Your task to perform on an android device: uninstall "Spotify: Music and Podcasts" Image 0: 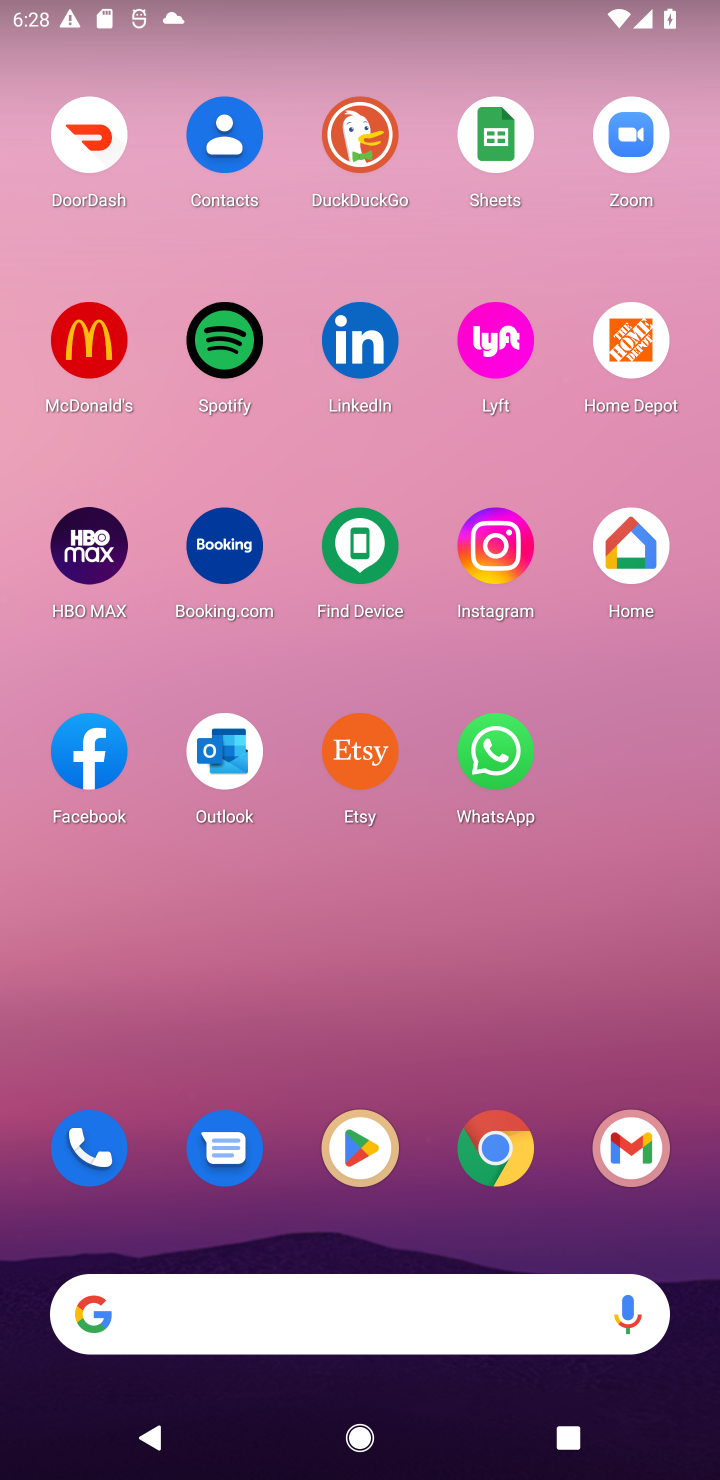
Step 0: drag from (492, 1142) to (288, 118)
Your task to perform on an android device: uninstall "Spotify: Music and Podcasts" Image 1: 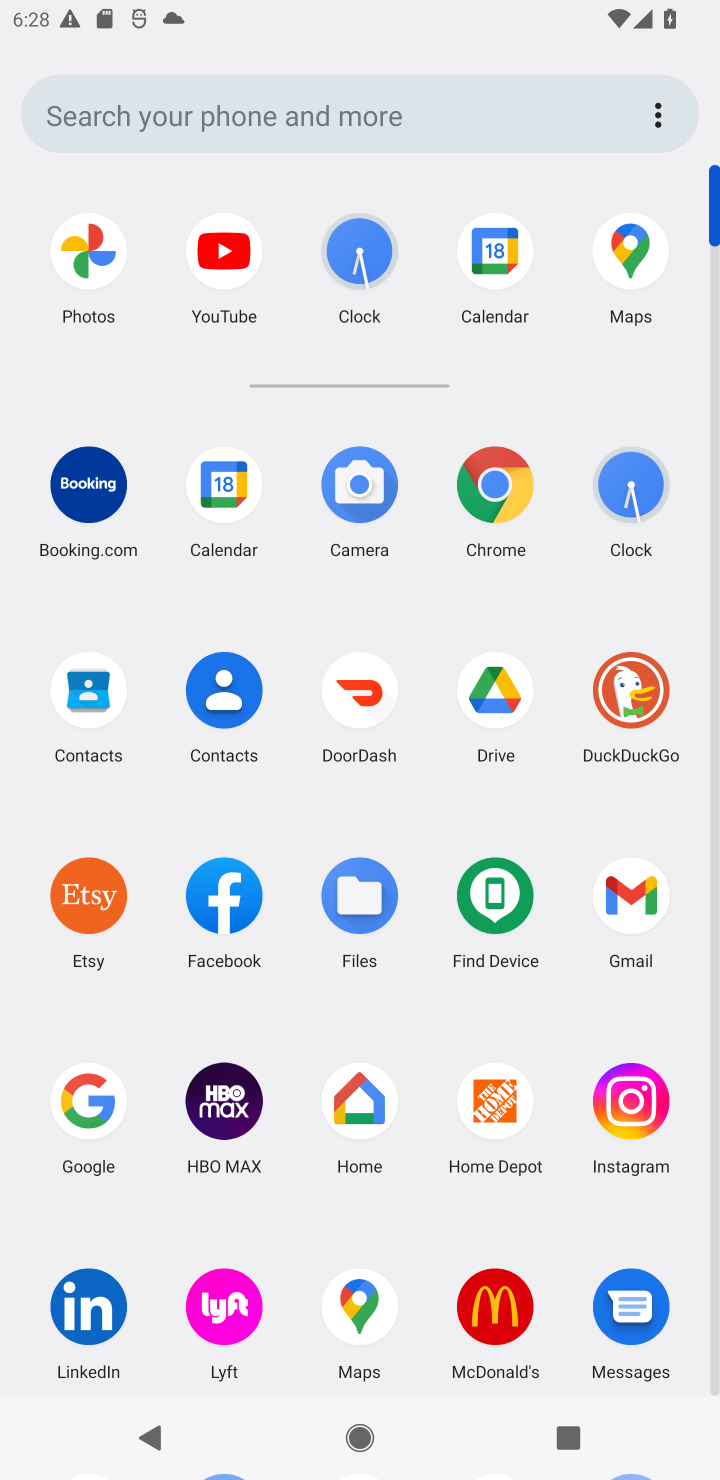
Step 1: drag from (383, 978) to (327, 224)
Your task to perform on an android device: uninstall "Spotify: Music and Podcasts" Image 2: 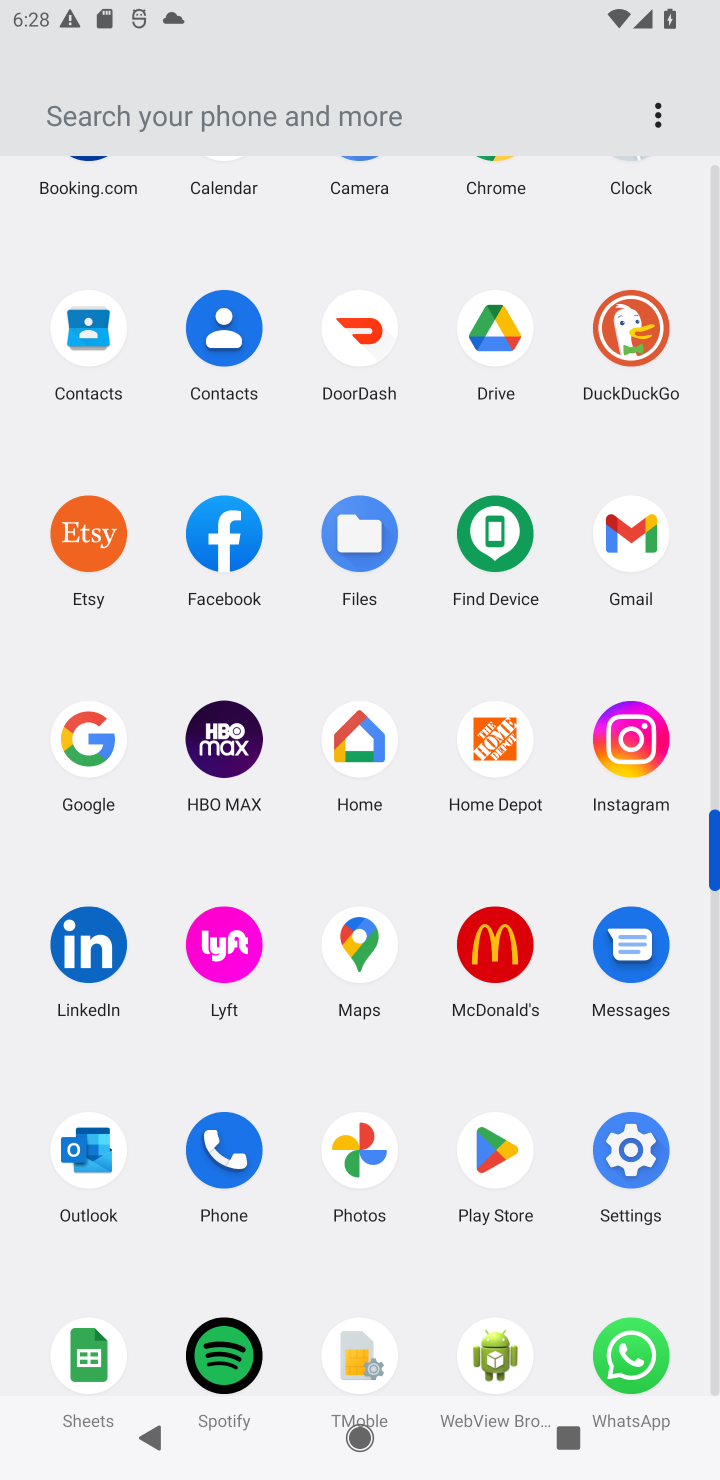
Step 2: click (472, 1126)
Your task to perform on an android device: uninstall "Spotify: Music and Podcasts" Image 3: 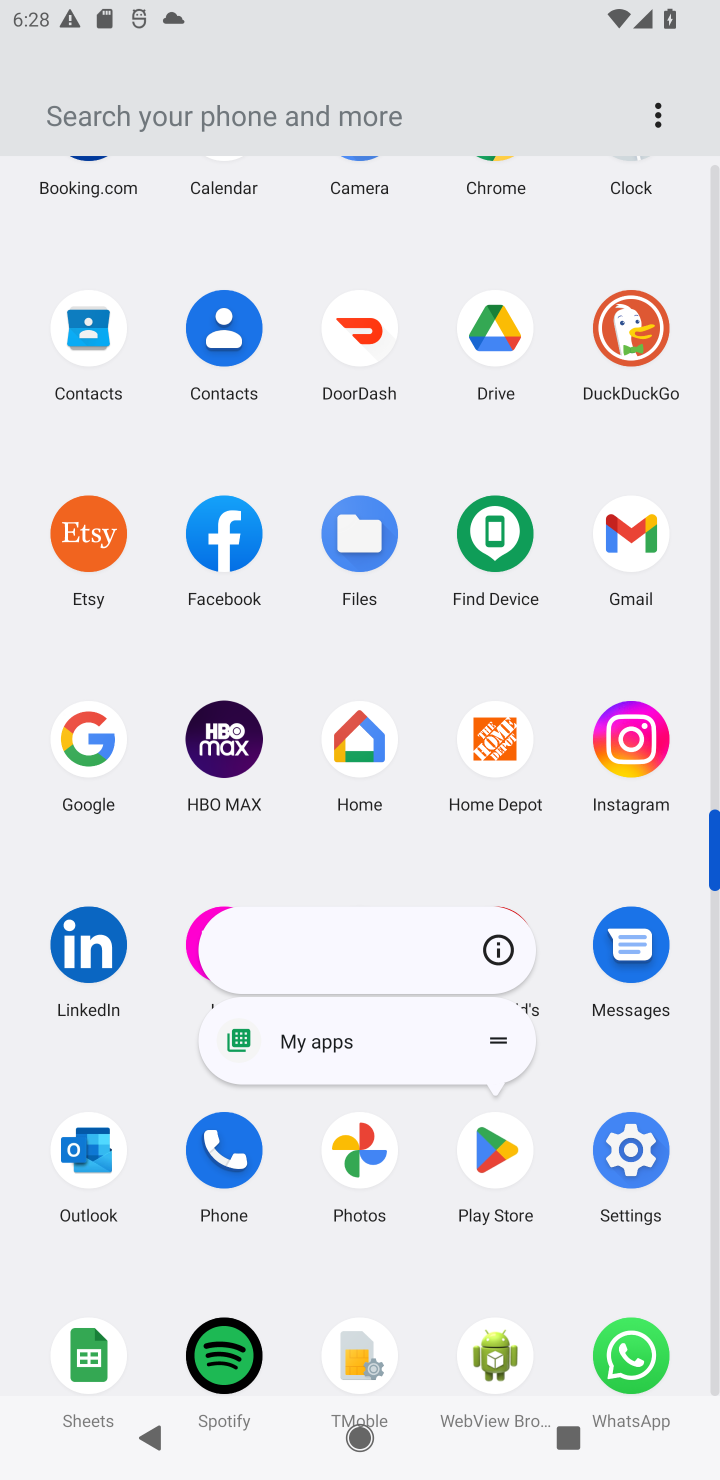
Step 3: click (493, 1139)
Your task to perform on an android device: uninstall "Spotify: Music and Podcasts" Image 4: 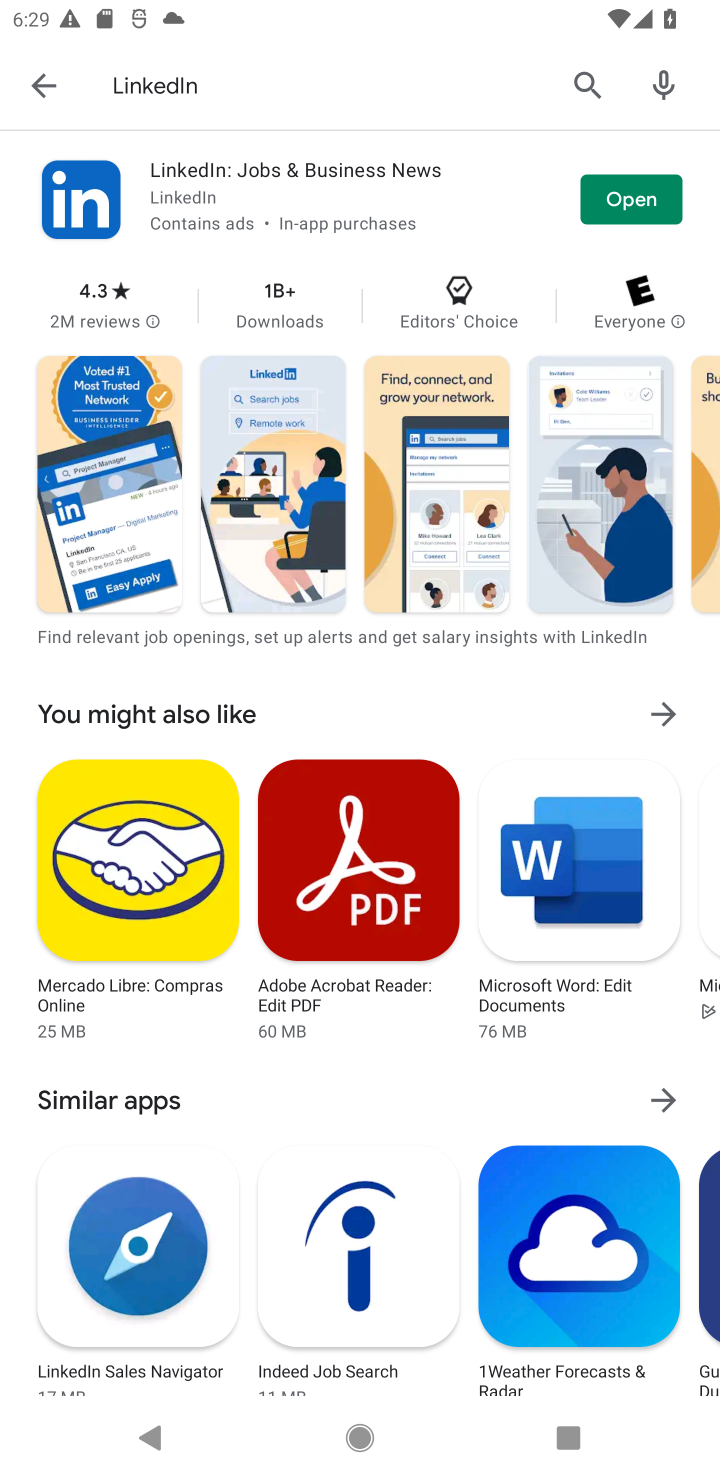
Step 4: press back button
Your task to perform on an android device: uninstall "Spotify: Music and Podcasts" Image 5: 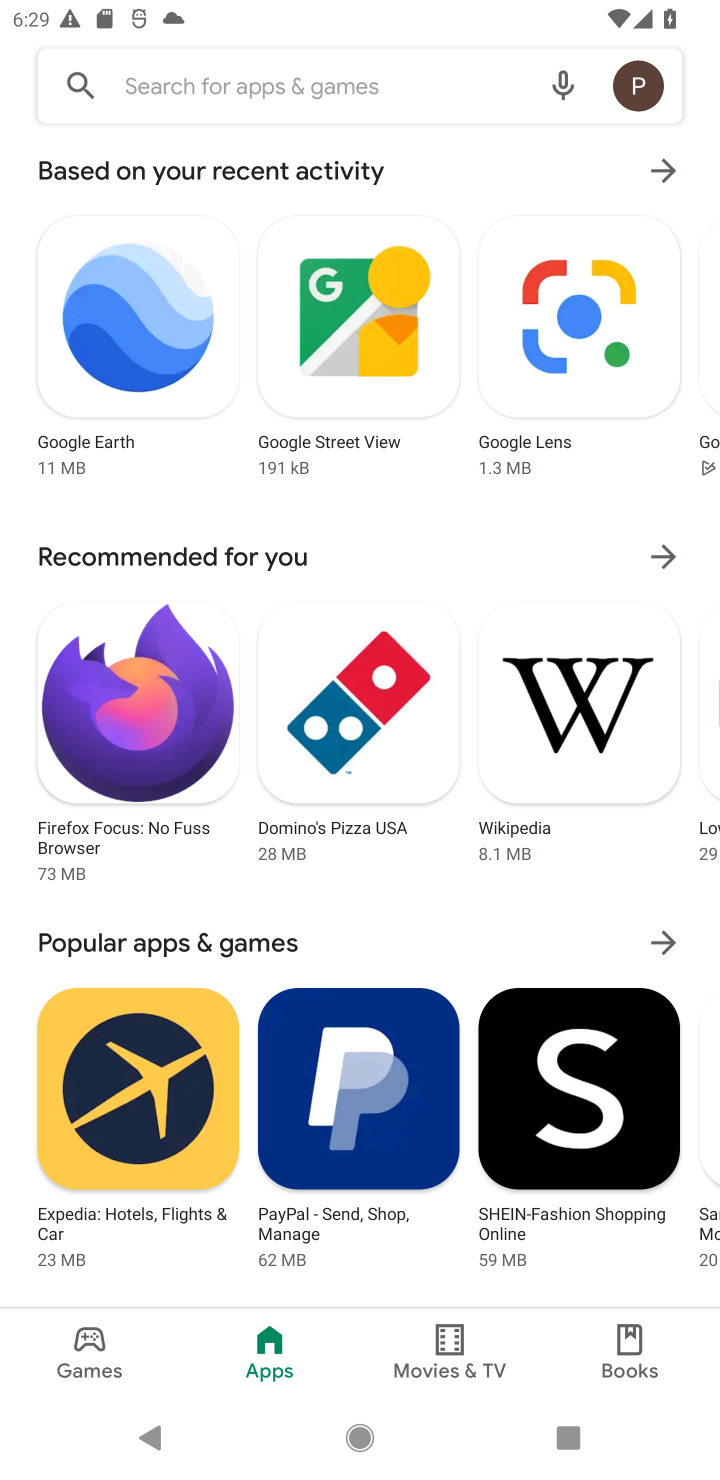
Step 5: click (299, 87)
Your task to perform on an android device: uninstall "Spotify: Music and Podcasts" Image 6: 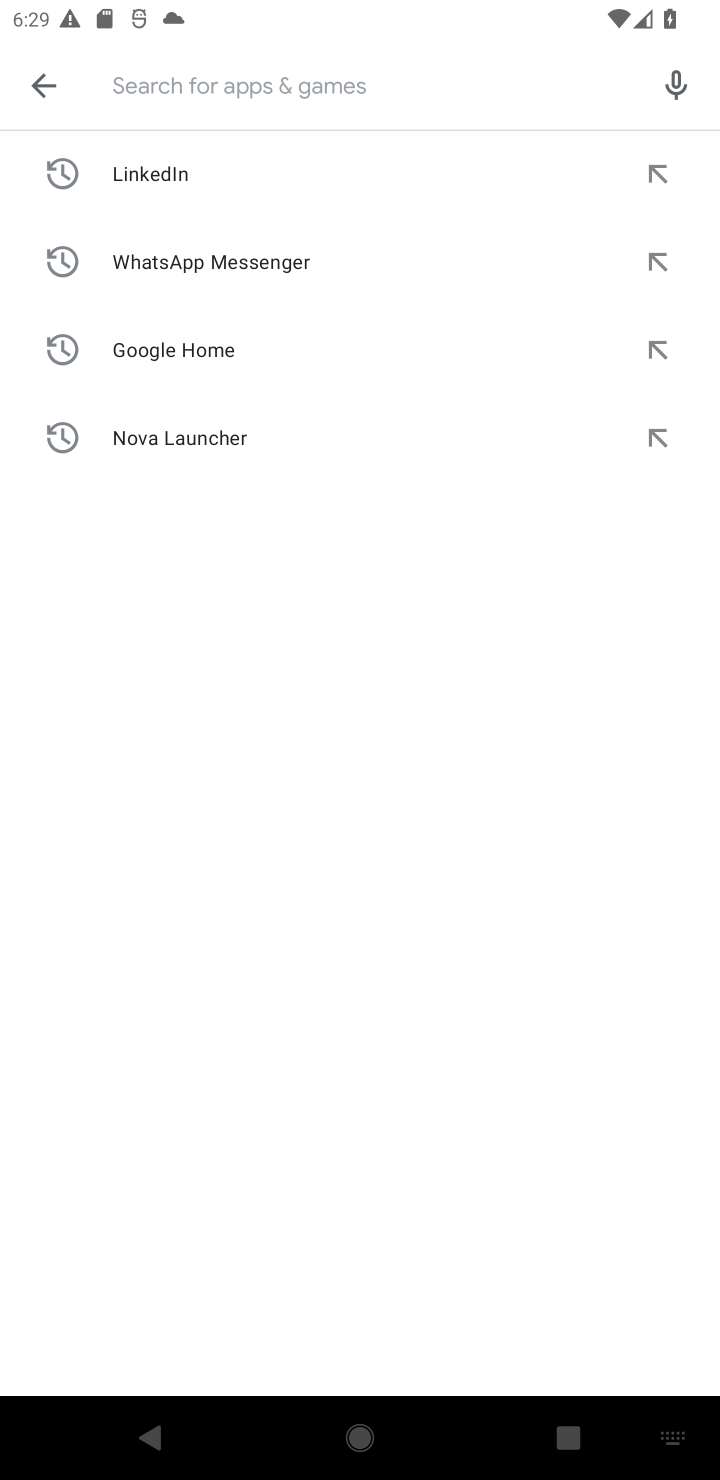
Step 6: type "Spotify: Music and Podcasts"
Your task to perform on an android device: uninstall "Spotify: Music and Podcasts" Image 7: 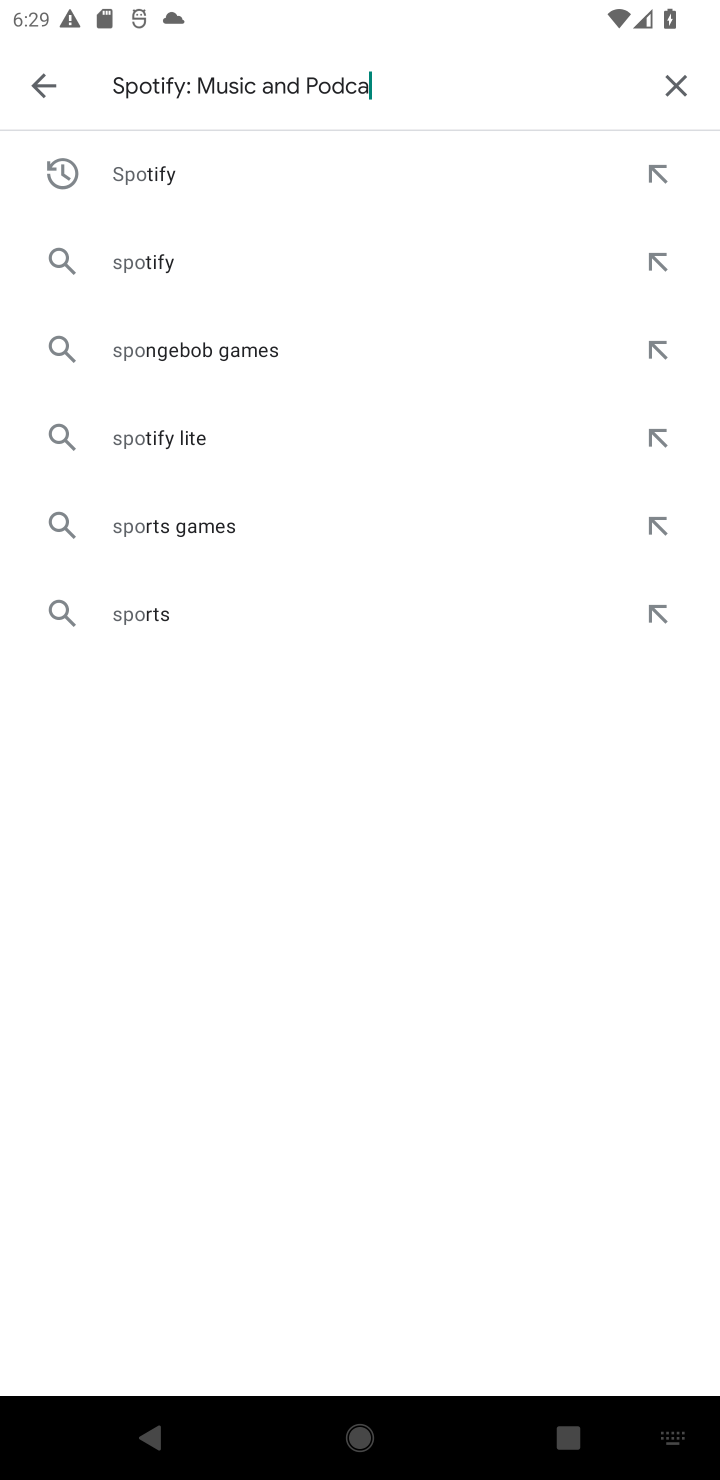
Step 7: press enter
Your task to perform on an android device: uninstall "Spotify: Music and Podcasts" Image 8: 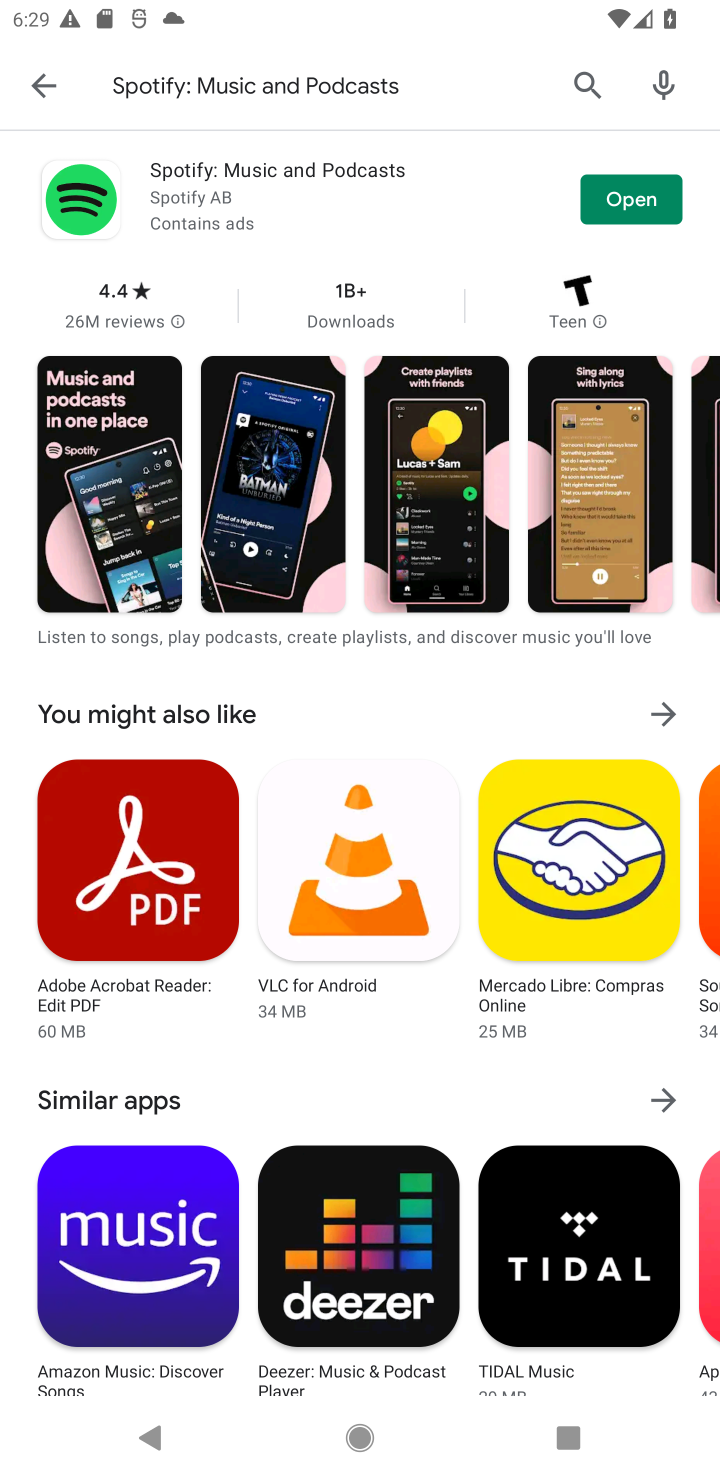
Step 8: click (162, 185)
Your task to perform on an android device: uninstall "Spotify: Music and Podcasts" Image 9: 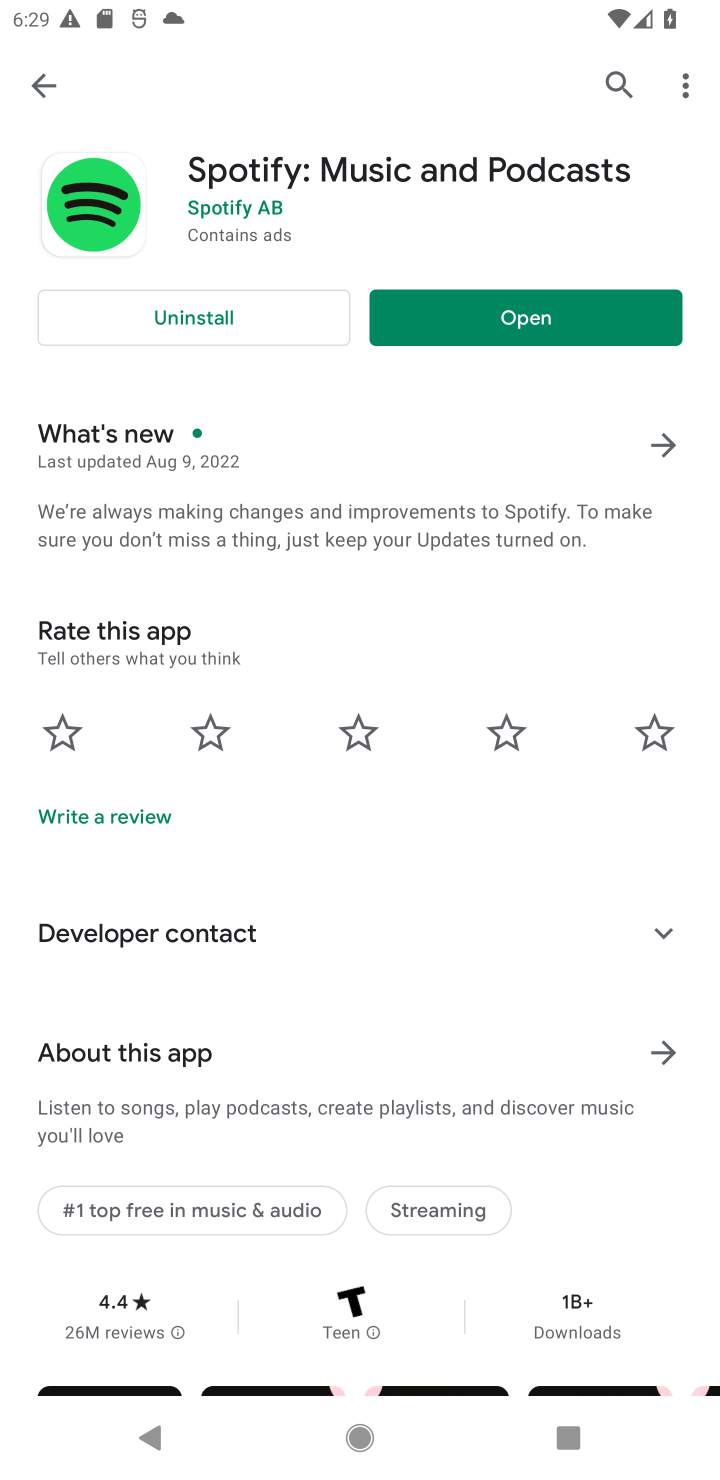
Step 9: click (198, 320)
Your task to perform on an android device: uninstall "Spotify: Music and Podcasts" Image 10: 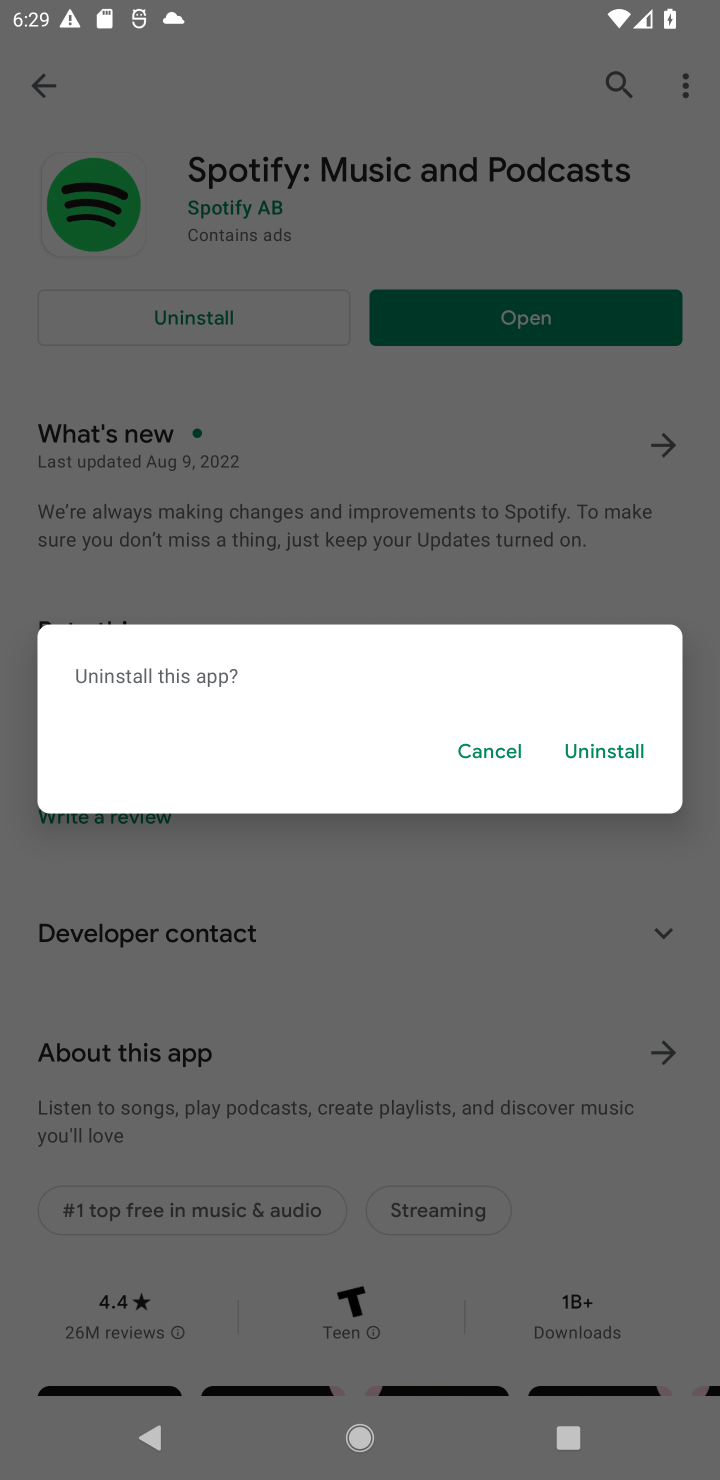
Step 10: click (615, 744)
Your task to perform on an android device: uninstall "Spotify: Music and Podcasts" Image 11: 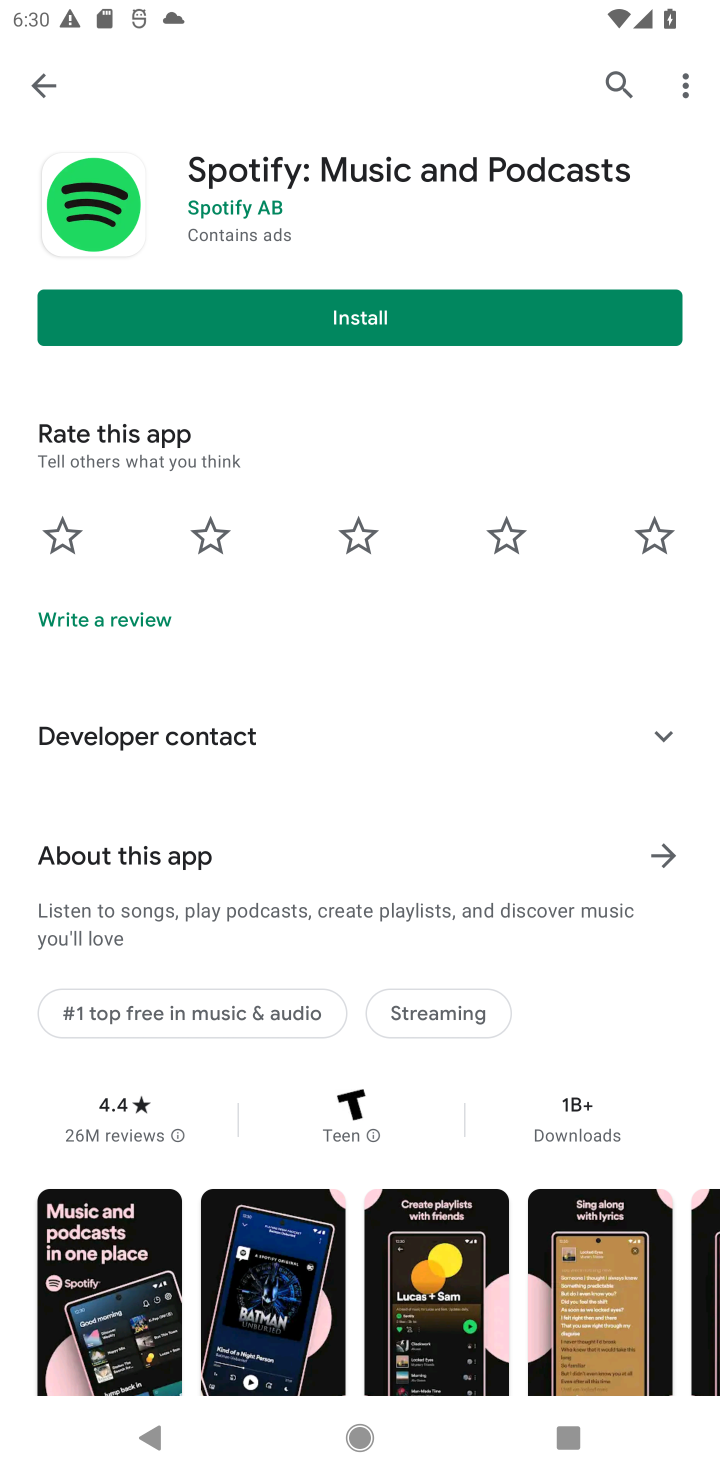
Step 11: task complete